Your task to perform on an android device: Search for vegetarian restaurants on Maps Image 0: 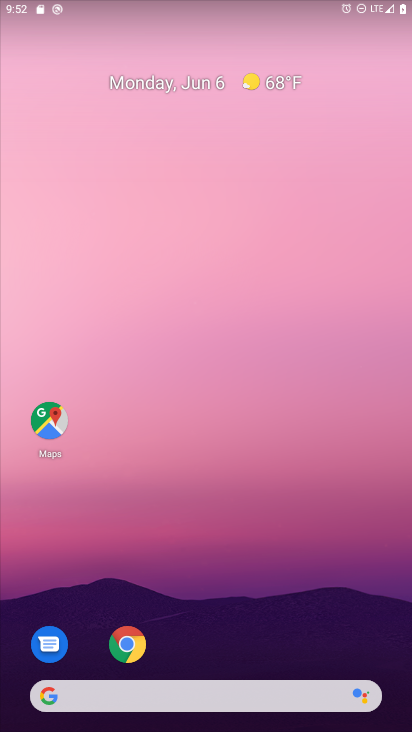
Step 0: drag from (239, 720) to (299, 291)
Your task to perform on an android device: Search for vegetarian restaurants on Maps Image 1: 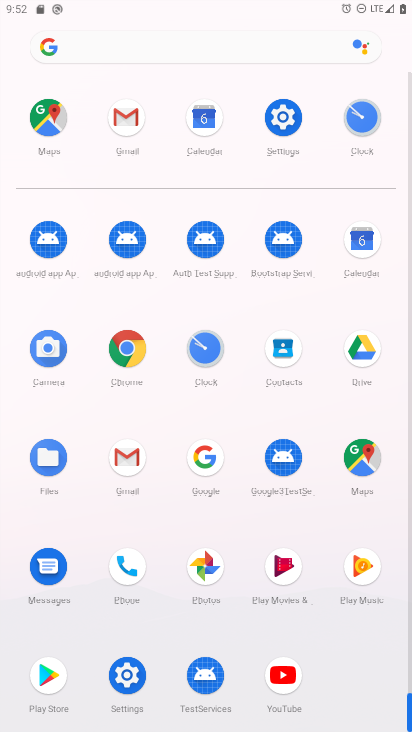
Step 1: click (368, 470)
Your task to perform on an android device: Search for vegetarian restaurants on Maps Image 2: 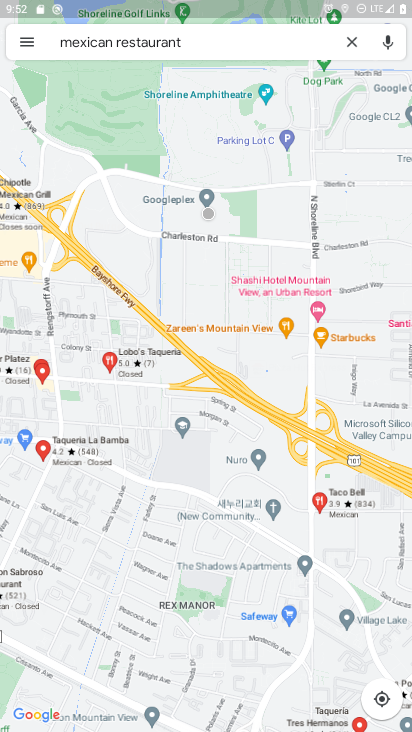
Step 2: click (206, 52)
Your task to perform on an android device: Search for vegetarian restaurants on Maps Image 3: 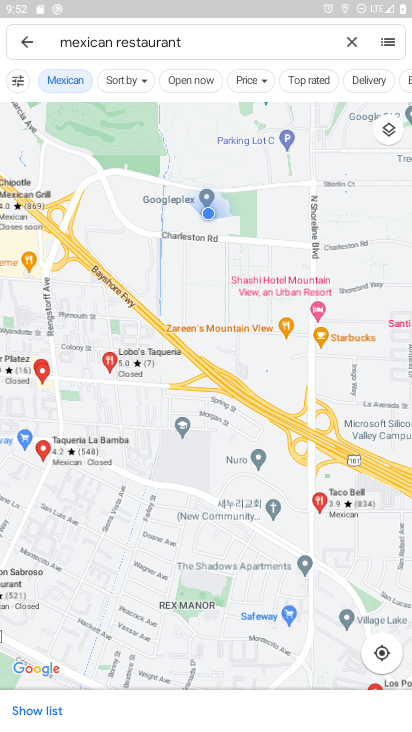
Step 3: click (343, 38)
Your task to perform on an android device: Search for vegetarian restaurants on Maps Image 4: 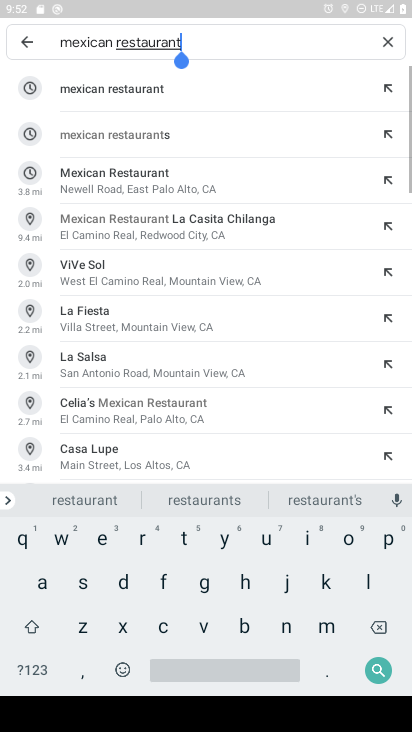
Step 4: click (389, 37)
Your task to perform on an android device: Search for vegetarian restaurants on Maps Image 5: 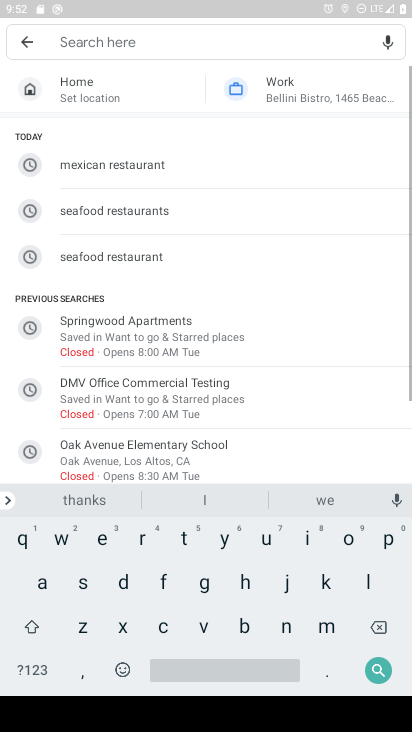
Step 5: click (204, 620)
Your task to perform on an android device: Search for vegetarian restaurants on Maps Image 6: 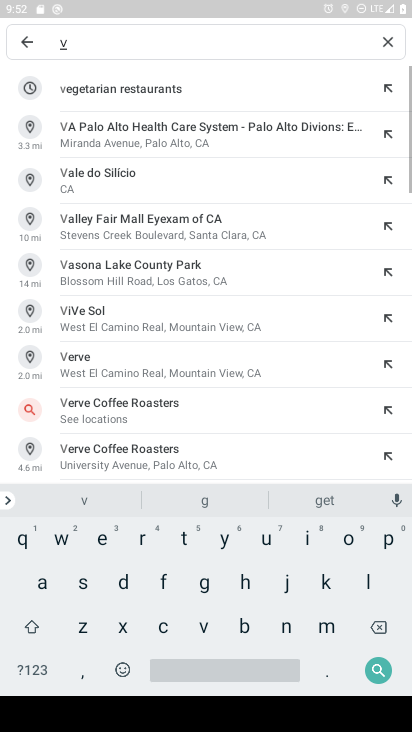
Step 6: click (130, 89)
Your task to perform on an android device: Search for vegetarian restaurants on Maps Image 7: 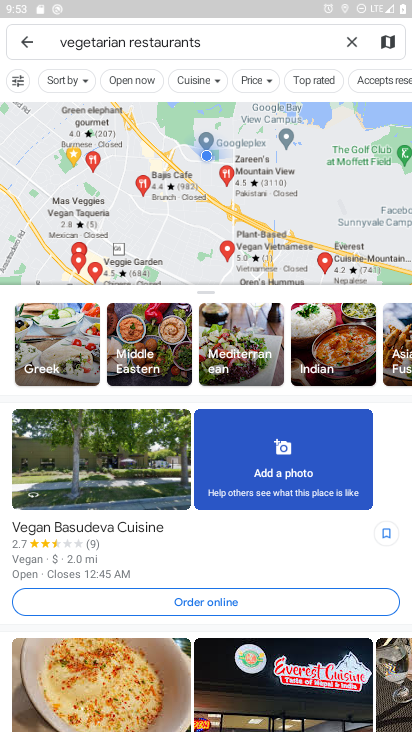
Step 7: task complete